Your task to perform on an android device: toggle notifications settings in the gmail app Image 0: 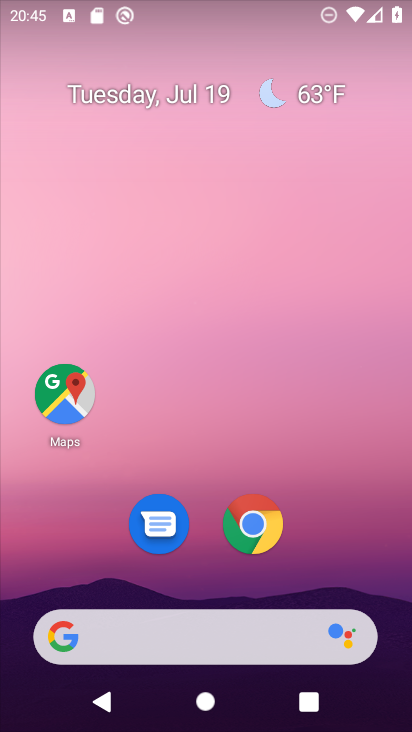
Step 0: drag from (312, 513) to (344, 34)
Your task to perform on an android device: toggle notifications settings in the gmail app Image 1: 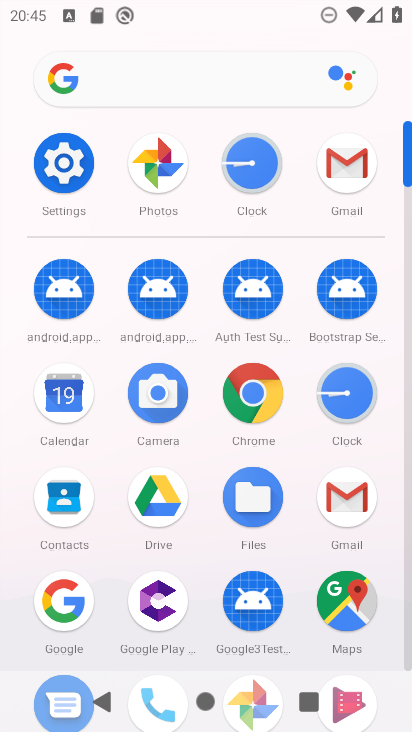
Step 1: click (338, 159)
Your task to perform on an android device: toggle notifications settings in the gmail app Image 2: 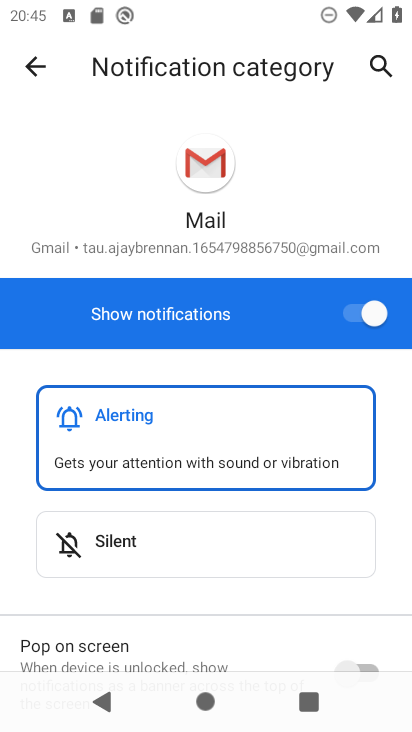
Step 2: click (354, 308)
Your task to perform on an android device: toggle notifications settings in the gmail app Image 3: 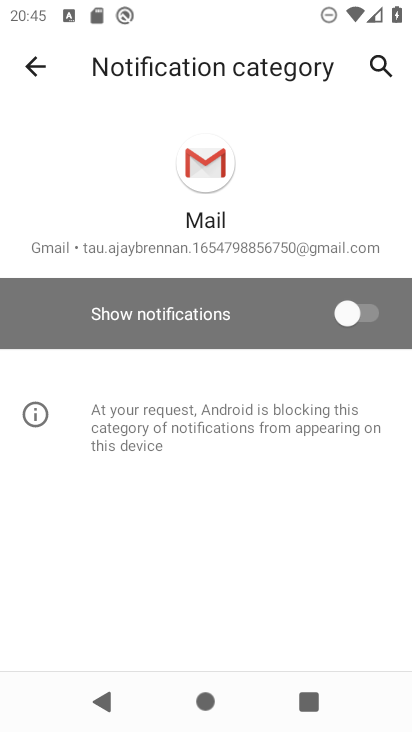
Step 3: task complete